Your task to perform on an android device: What's the weather going to be this weekend? Image 0: 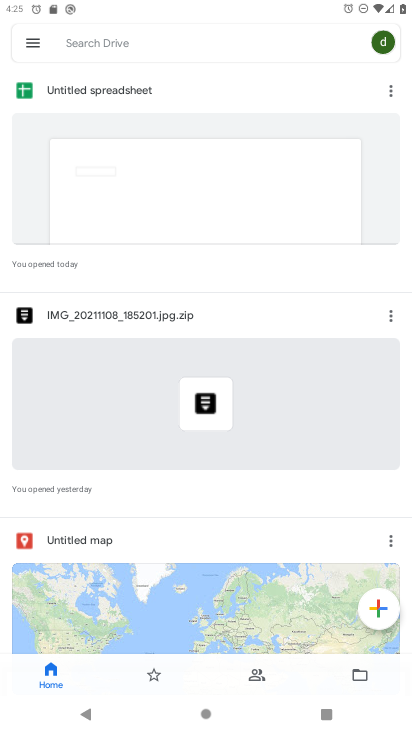
Step 0: press home button
Your task to perform on an android device: What's the weather going to be this weekend? Image 1: 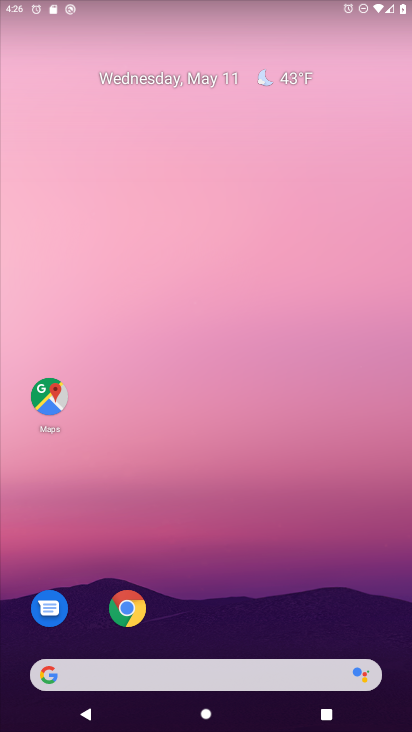
Step 1: click (263, 73)
Your task to perform on an android device: What's the weather going to be this weekend? Image 2: 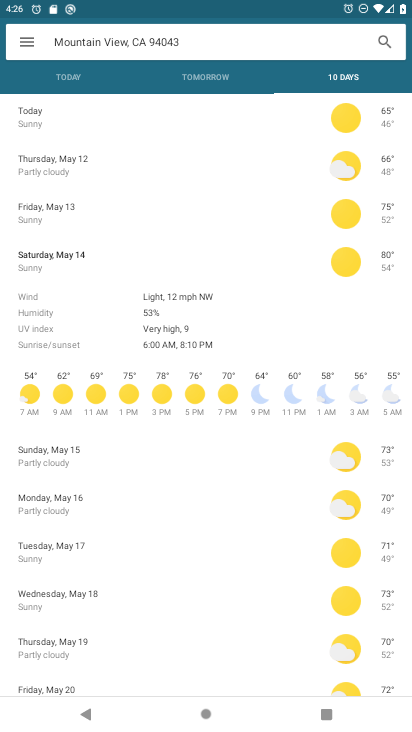
Step 2: task complete